Your task to perform on an android device: Go to Wikipedia Image 0: 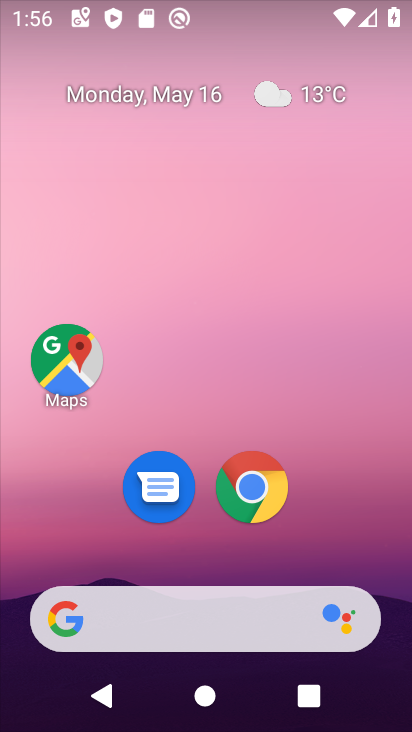
Step 0: drag from (325, 503) to (172, 15)
Your task to perform on an android device: Go to Wikipedia Image 1: 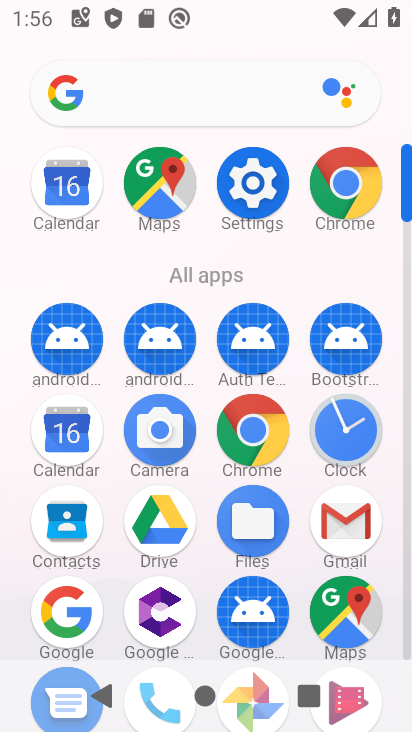
Step 1: drag from (14, 553) to (20, 204)
Your task to perform on an android device: Go to Wikipedia Image 2: 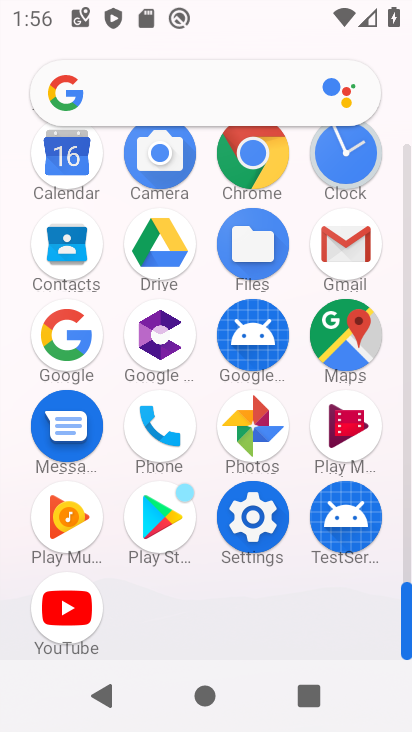
Step 2: click (245, 142)
Your task to perform on an android device: Go to Wikipedia Image 3: 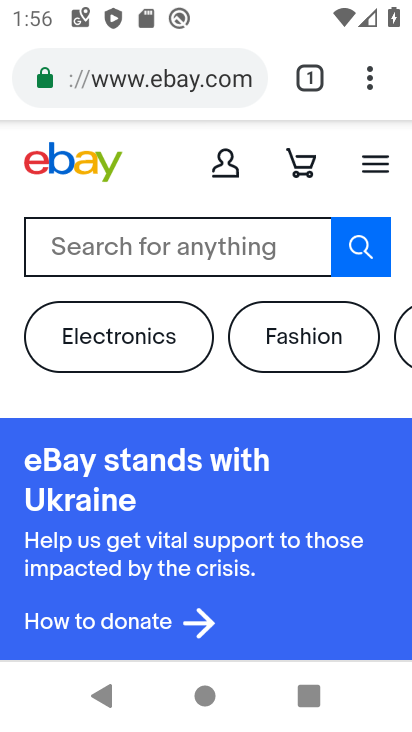
Step 3: click (199, 76)
Your task to perform on an android device: Go to Wikipedia Image 4: 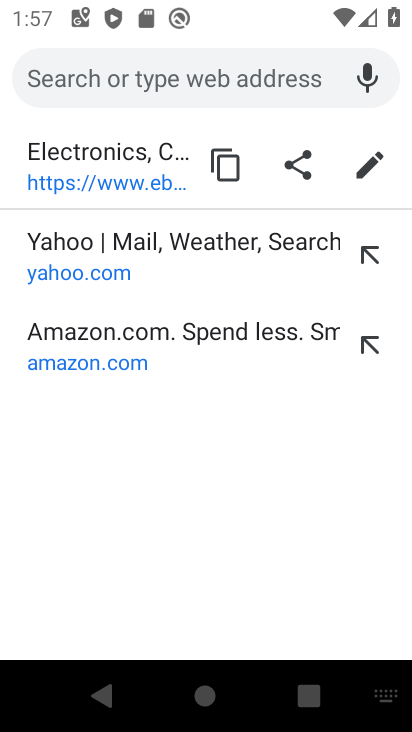
Step 4: type "Wikipedia"
Your task to perform on an android device: Go to Wikipedia Image 5: 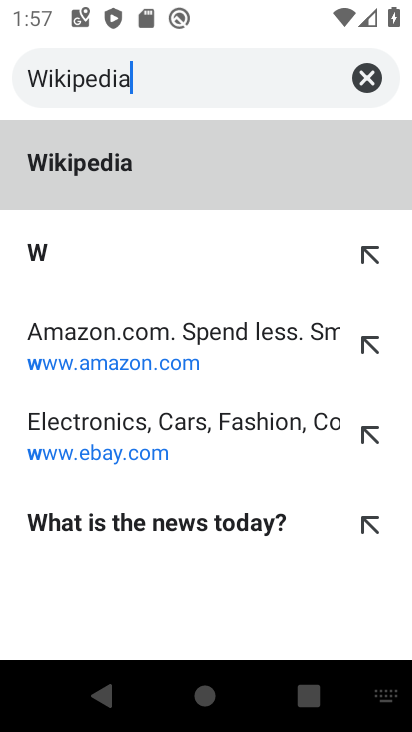
Step 5: type ""
Your task to perform on an android device: Go to Wikipedia Image 6: 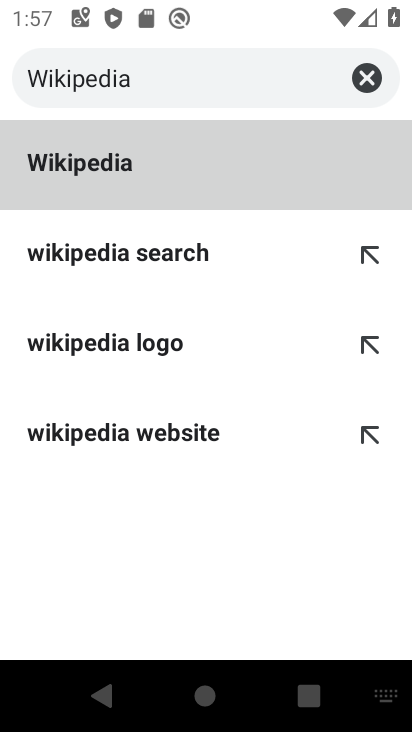
Step 6: click (155, 185)
Your task to perform on an android device: Go to Wikipedia Image 7: 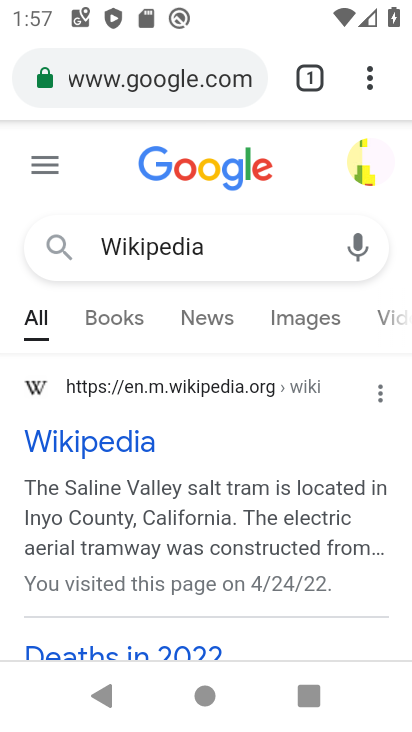
Step 7: click (62, 445)
Your task to perform on an android device: Go to Wikipedia Image 8: 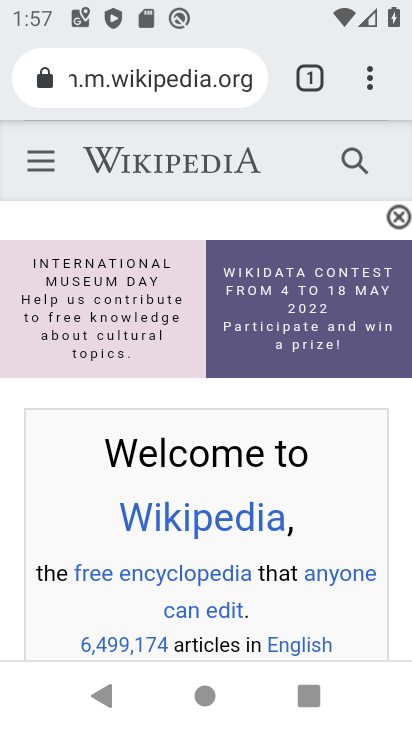
Step 8: task complete